Your task to perform on an android device: Is it going to rain tomorrow? Image 0: 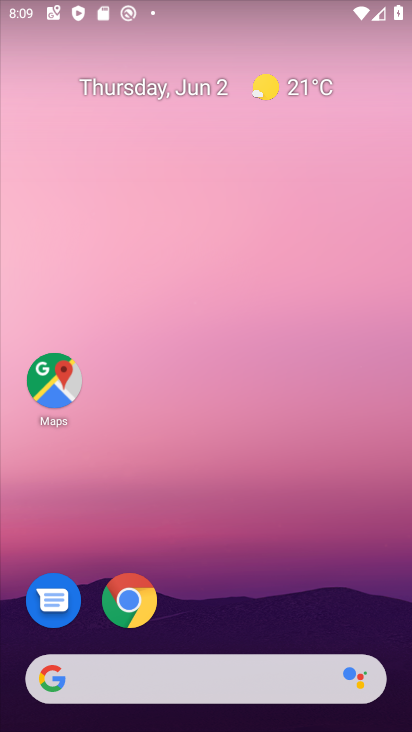
Step 0: click (285, 82)
Your task to perform on an android device: Is it going to rain tomorrow? Image 1: 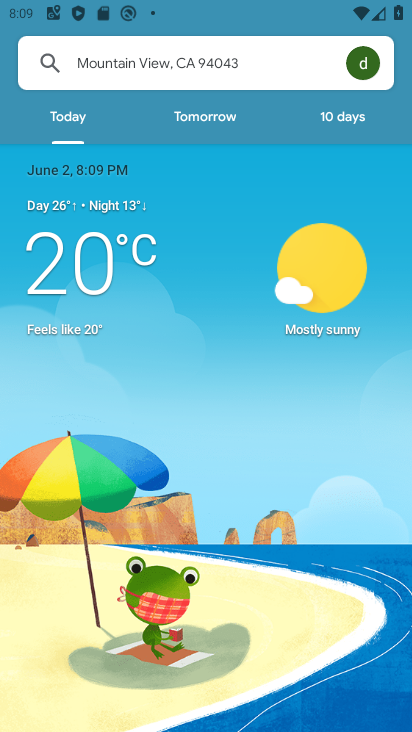
Step 1: click (203, 118)
Your task to perform on an android device: Is it going to rain tomorrow? Image 2: 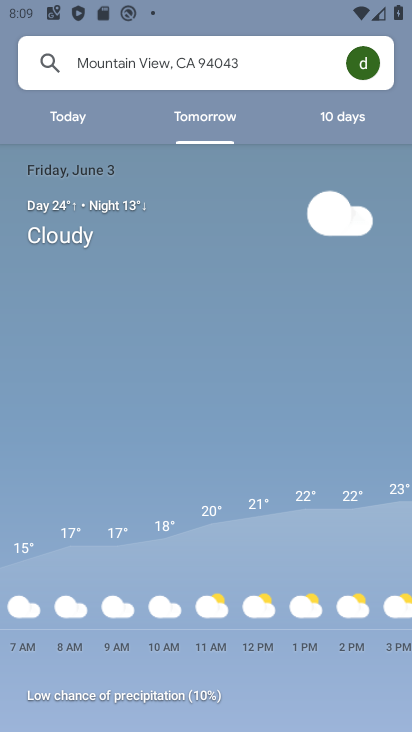
Step 2: task complete